Your task to perform on an android device: turn on the 12-hour format for clock Image 0: 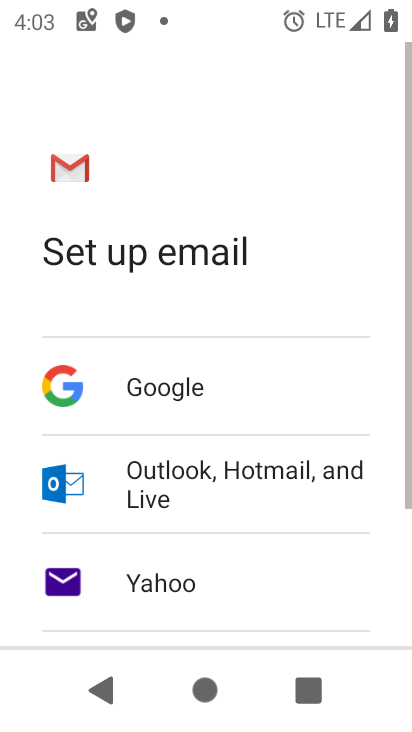
Step 0: press home button
Your task to perform on an android device: turn on the 12-hour format for clock Image 1: 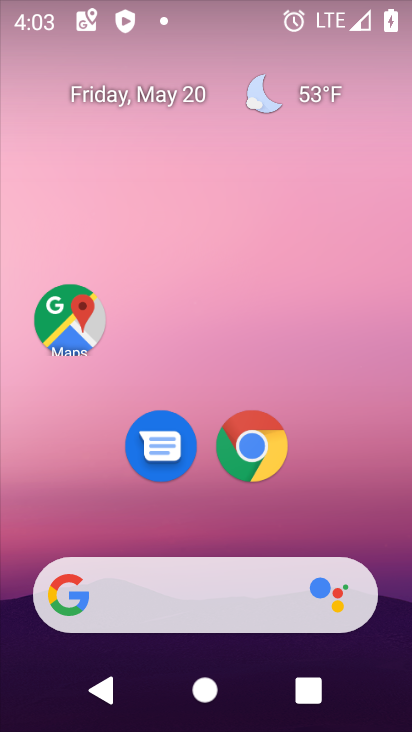
Step 1: drag from (380, 433) to (355, 190)
Your task to perform on an android device: turn on the 12-hour format for clock Image 2: 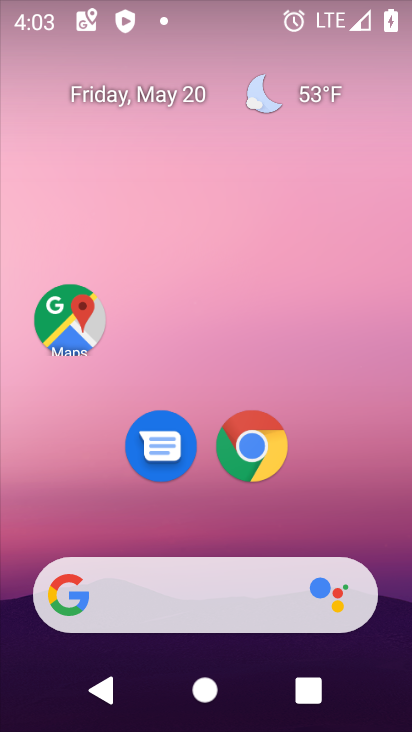
Step 2: drag from (316, 500) to (390, 116)
Your task to perform on an android device: turn on the 12-hour format for clock Image 3: 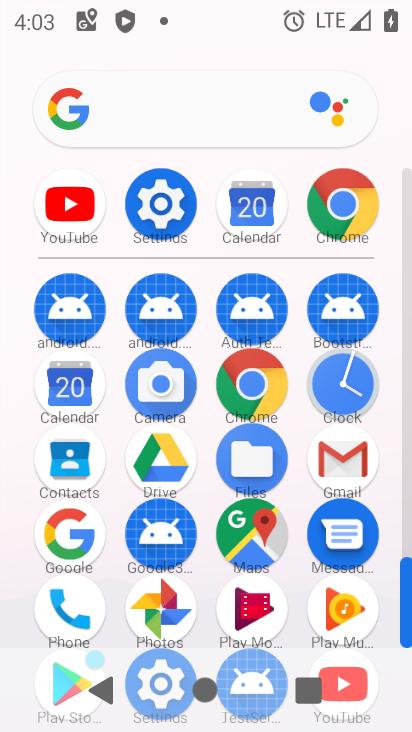
Step 3: click (353, 384)
Your task to perform on an android device: turn on the 12-hour format for clock Image 4: 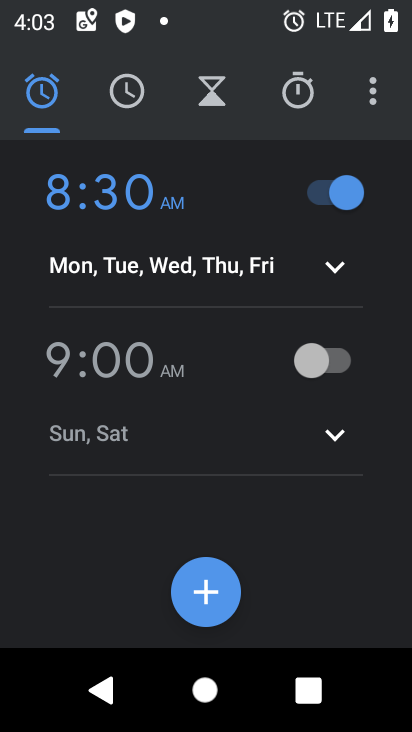
Step 4: click (376, 108)
Your task to perform on an android device: turn on the 12-hour format for clock Image 5: 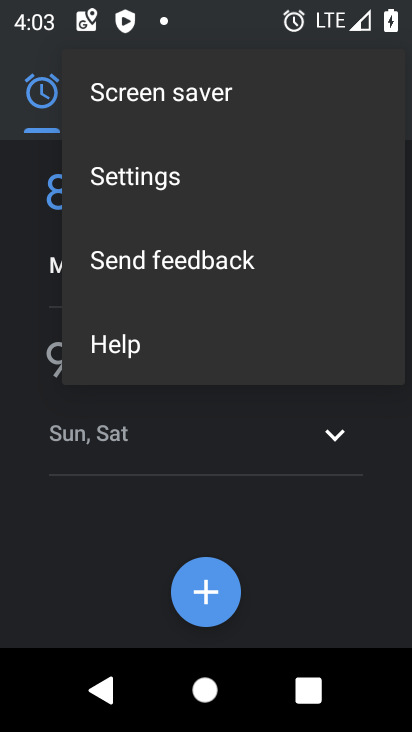
Step 5: click (157, 201)
Your task to perform on an android device: turn on the 12-hour format for clock Image 6: 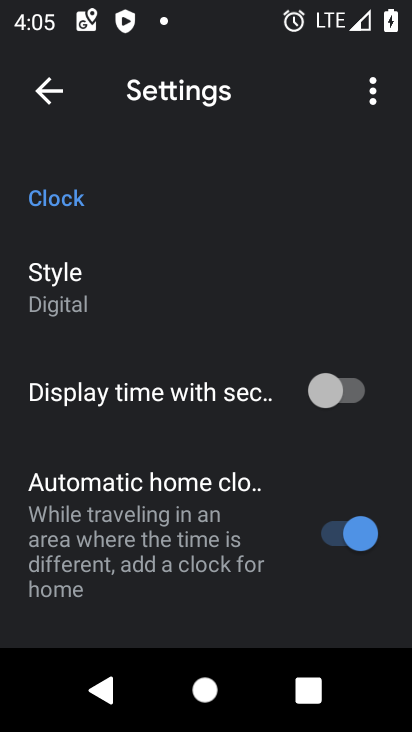
Step 6: drag from (259, 487) to (319, 180)
Your task to perform on an android device: turn on the 12-hour format for clock Image 7: 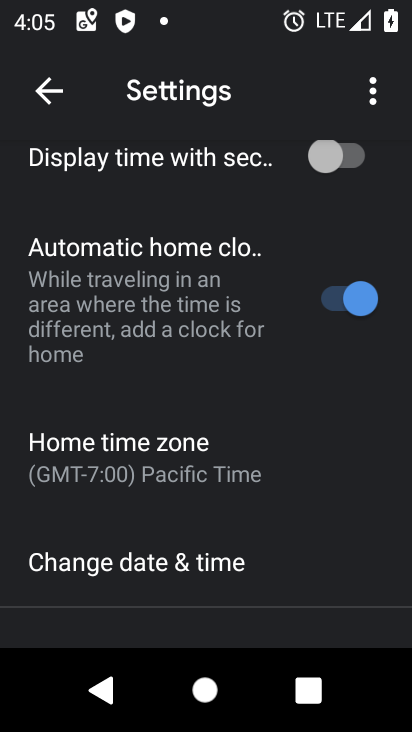
Step 7: drag from (273, 520) to (332, 198)
Your task to perform on an android device: turn on the 12-hour format for clock Image 8: 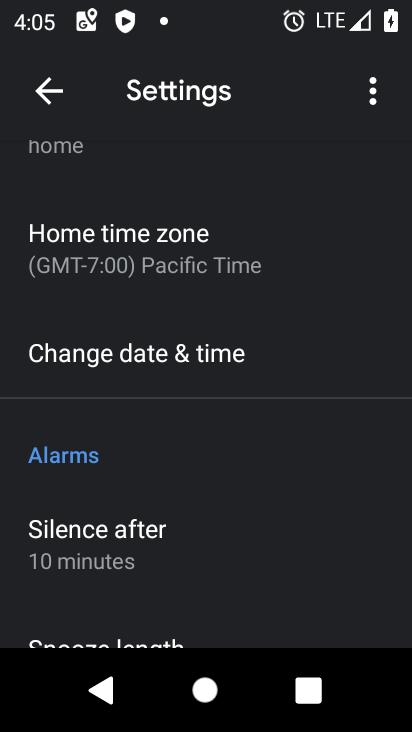
Step 8: click (215, 359)
Your task to perform on an android device: turn on the 12-hour format for clock Image 9: 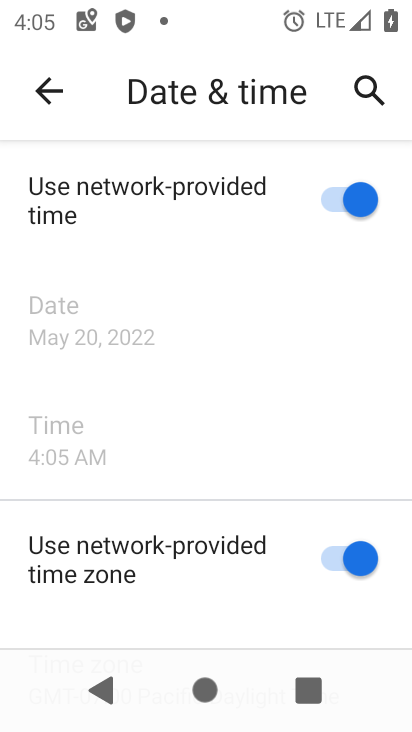
Step 9: task complete